Your task to perform on an android device: open sync settings in chrome Image 0: 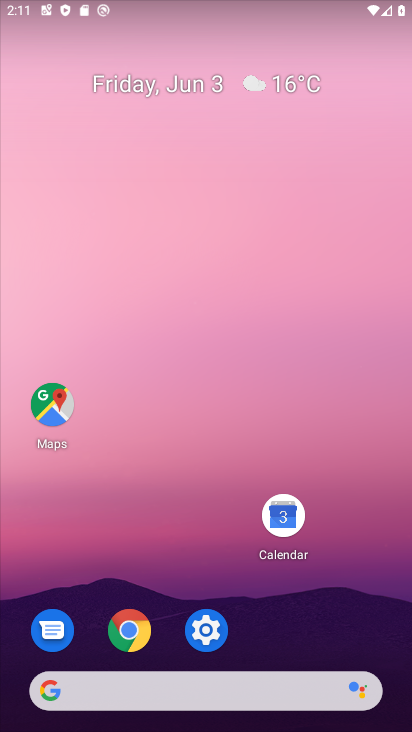
Step 0: drag from (271, 663) to (295, 218)
Your task to perform on an android device: open sync settings in chrome Image 1: 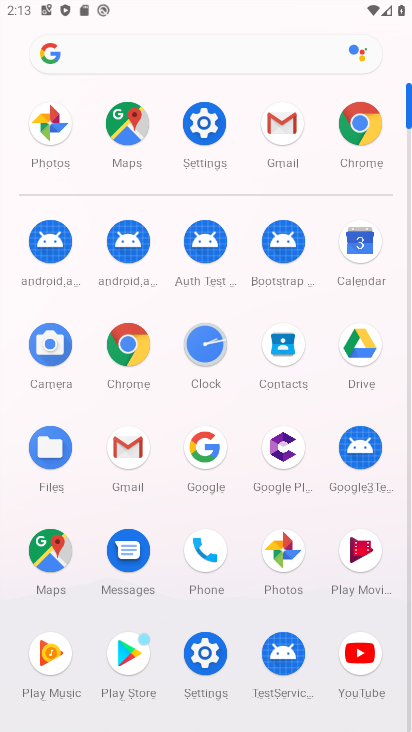
Step 1: click (104, 336)
Your task to perform on an android device: open sync settings in chrome Image 2: 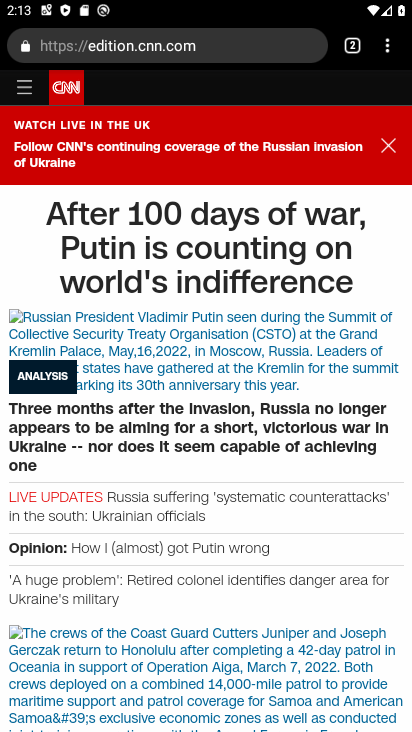
Step 2: click (386, 55)
Your task to perform on an android device: open sync settings in chrome Image 3: 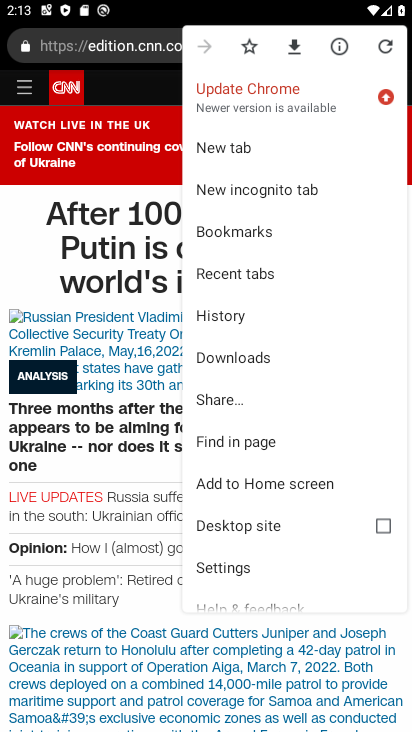
Step 3: click (241, 572)
Your task to perform on an android device: open sync settings in chrome Image 4: 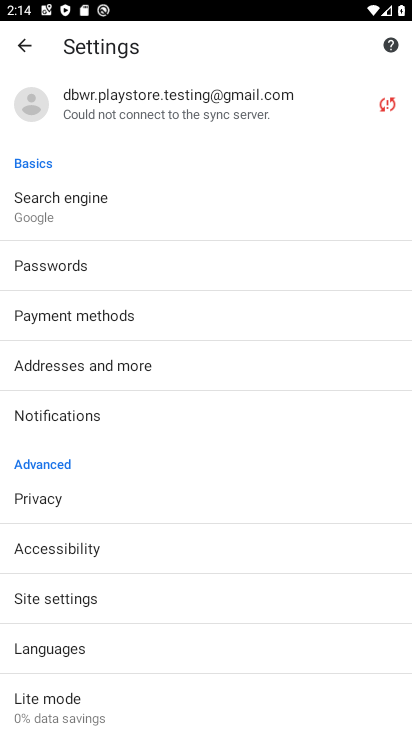
Step 4: task complete